Your task to perform on an android device: add a contact in the contacts app Image 0: 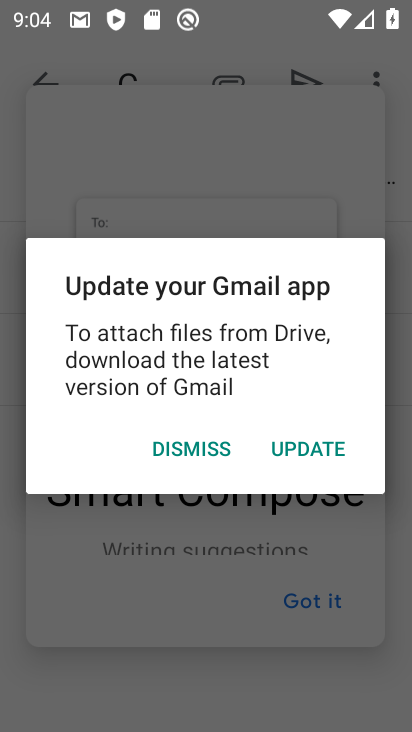
Step 0: press home button
Your task to perform on an android device: add a contact in the contacts app Image 1: 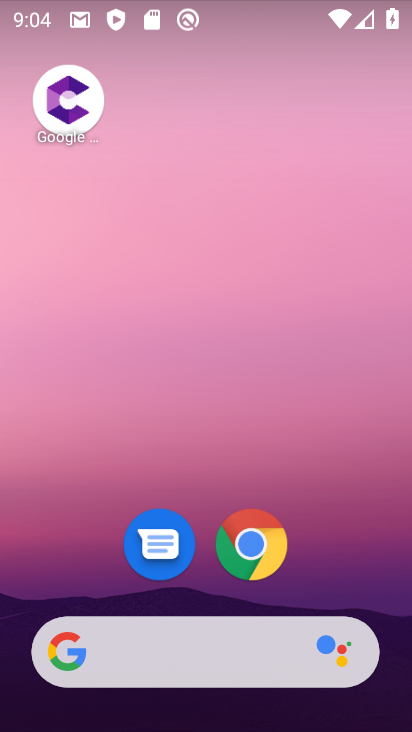
Step 1: drag from (340, 540) to (258, 38)
Your task to perform on an android device: add a contact in the contacts app Image 2: 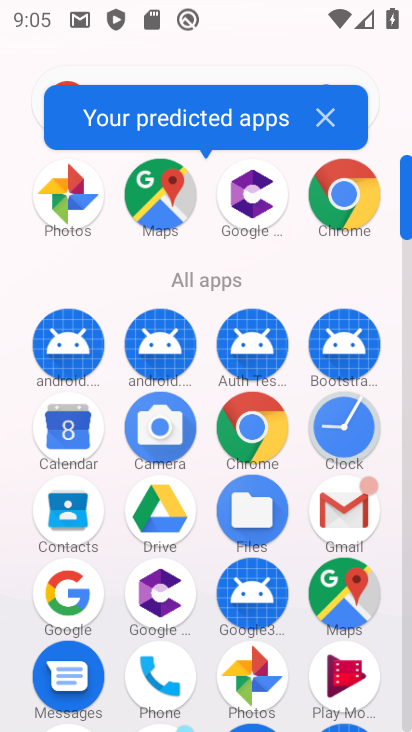
Step 2: click (81, 531)
Your task to perform on an android device: add a contact in the contacts app Image 3: 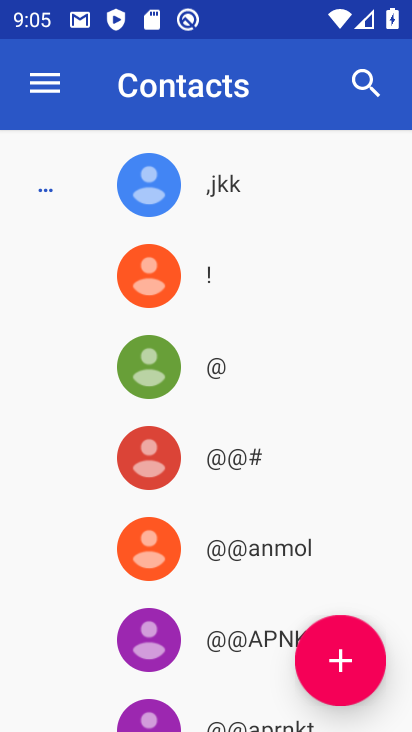
Step 3: click (345, 679)
Your task to perform on an android device: add a contact in the contacts app Image 4: 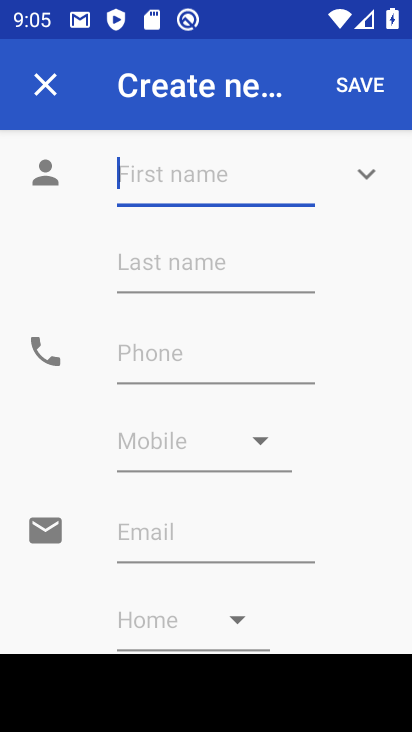
Step 4: type "hjyyfytd"
Your task to perform on an android device: add a contact in the contacts app Image 5: 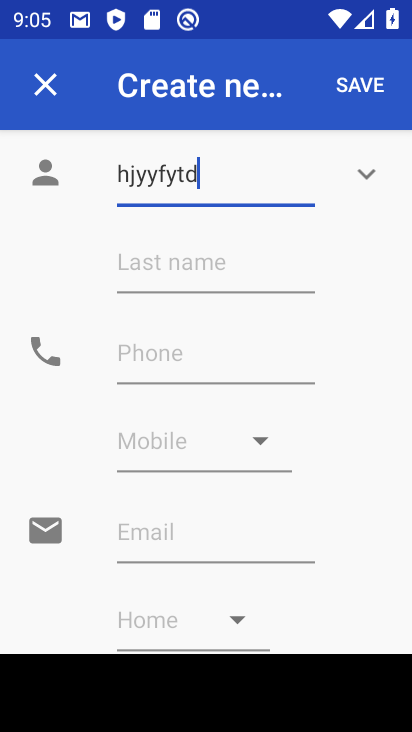
Step 5: click (213, 276)
Your task to perform on an android device: add a contact in the contacts app Image 6: 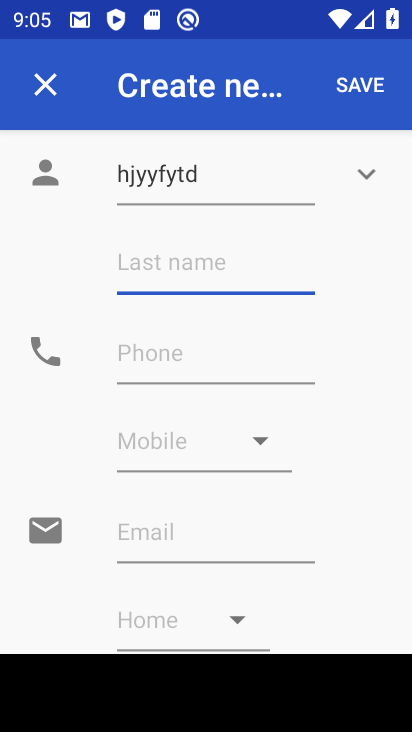
Step 6: type "hgdx"
Your task to perform on an android device: add a contact in the contacts app Image 7: 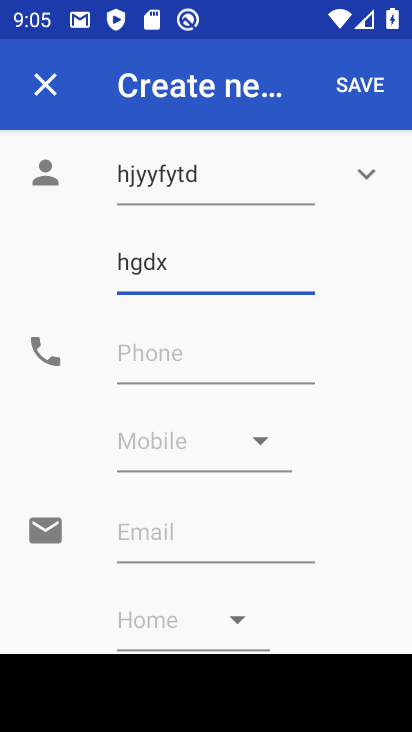
Step 7: click (185, 346)
Your task to perform on an android device: add a contact in the contacts app Image 8: 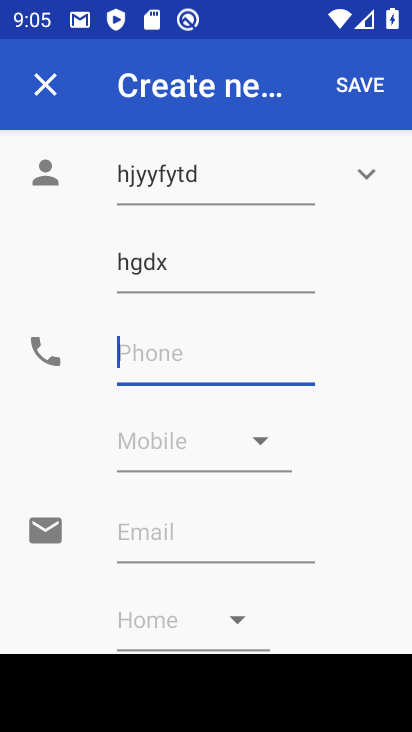
Step 8: type "78776464"
Your task to perform on an android device: add a contact in the contacts app Image 9: 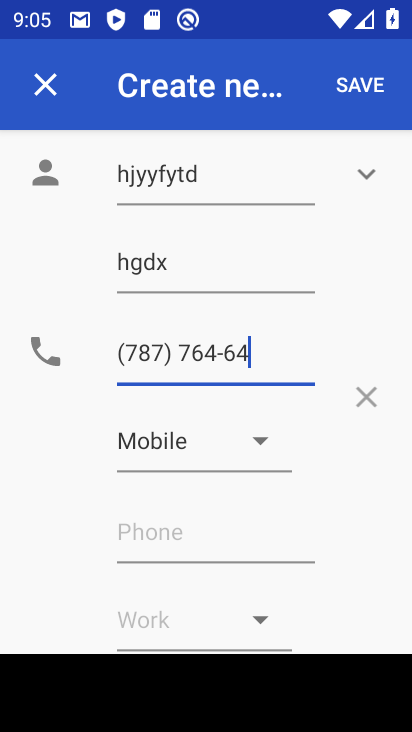
Step 9: task complete